Your task to perform on an android device: Go to Amazon Image 0: 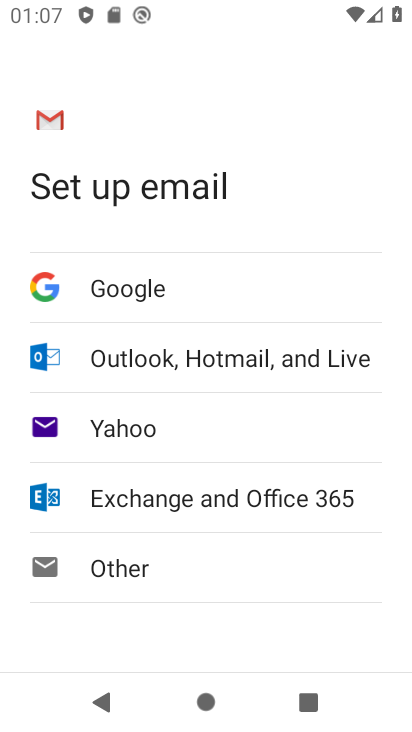
Step 0: press home button
Your task to perform on an android device: Go to Amazon Image 1: 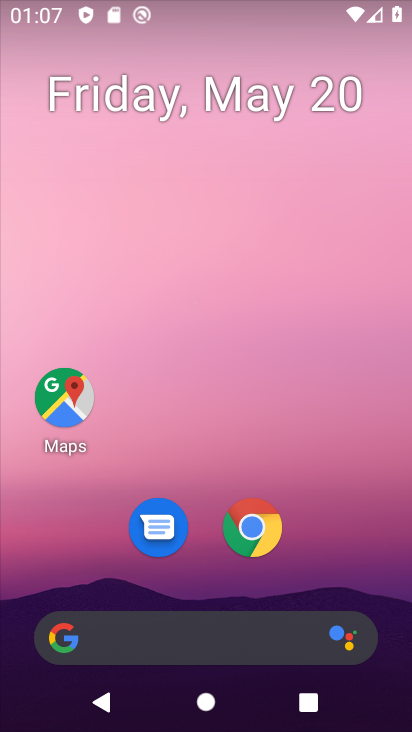
Step 1: click (255, 522)
Your task to perform on an android device: Go to Amazon Image 2: 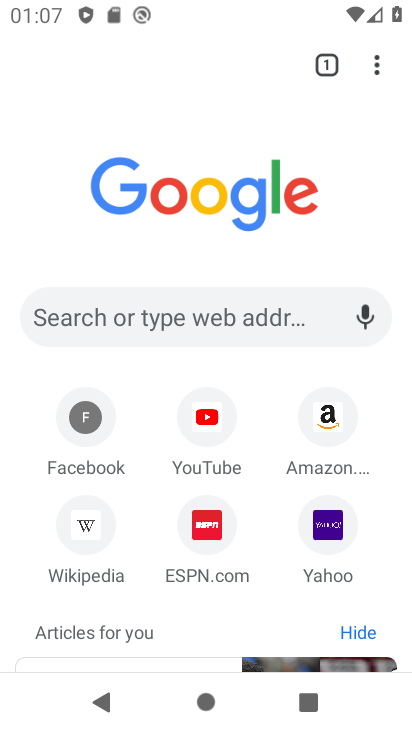
Step 2: click (328, 423)
Your task to perform on an android device: Go to Amazon Image 3: 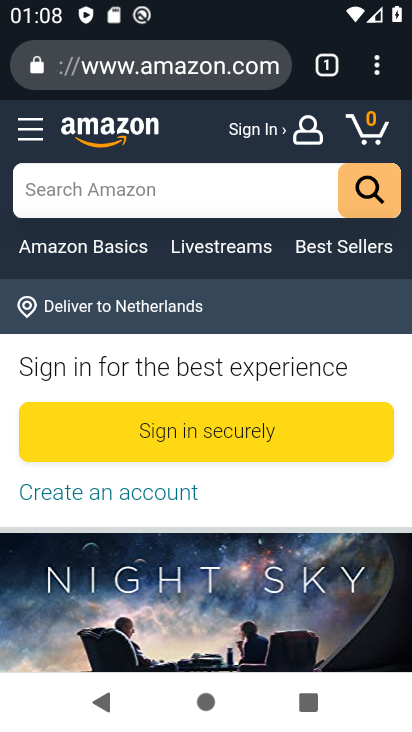
Step 3: task complete